Your task to perform on an android device: Open the stopwatch Image 0: 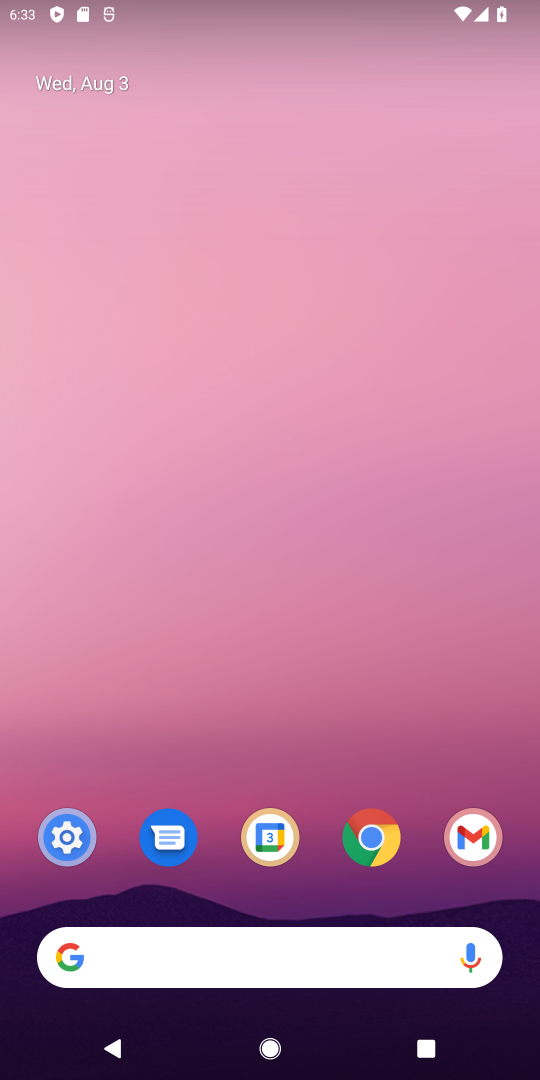
Step 0: press home button
Your task to perform on an android device: Open the stopwatch Image 1: 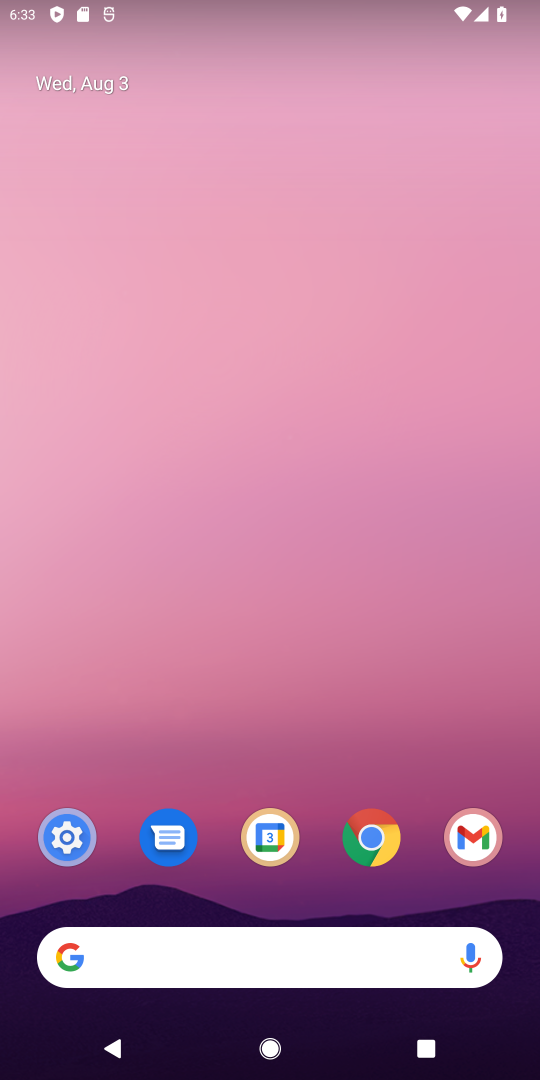
Step 1: drag from (271, 749) to (165, 159)
Your task to perform on an android device: Open the stopwatch Image 2: 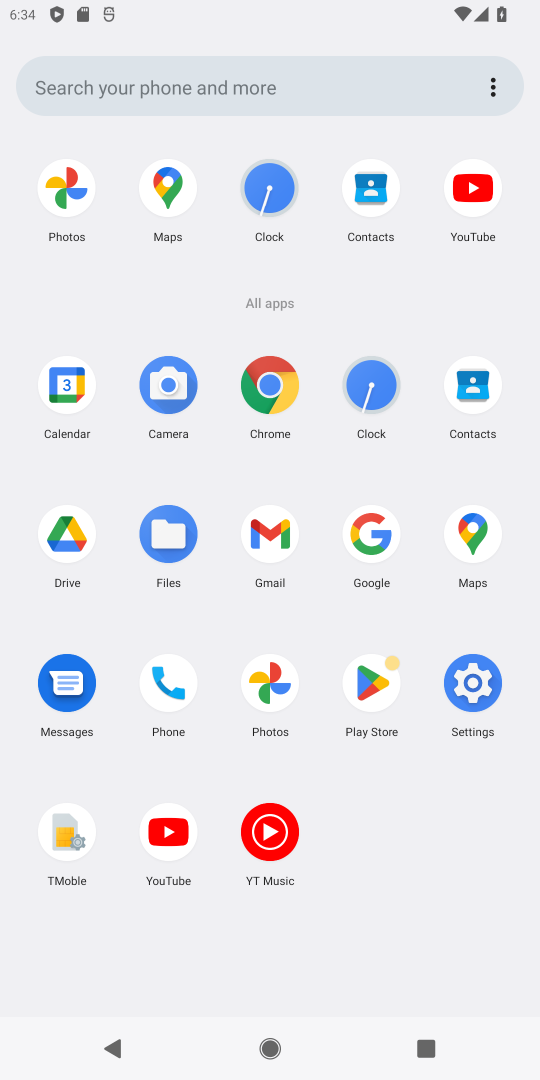
Step 2: click (277, 179)
Your task to perform on an android device: Open the stopwatch Image 3: 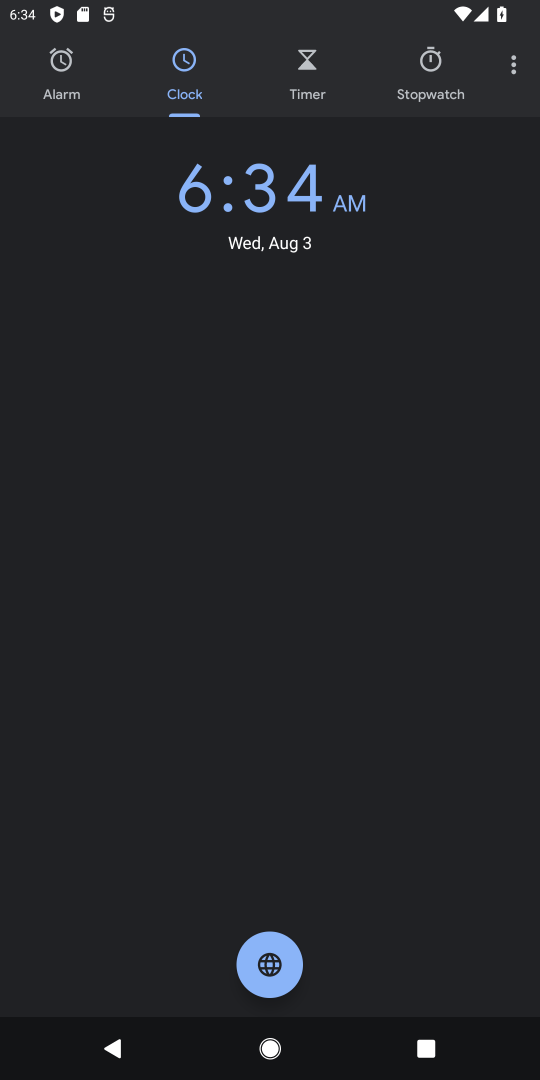
Step 3: click (431, 74)
Your task to perform on an android device: Open the stopwatch Image 4: 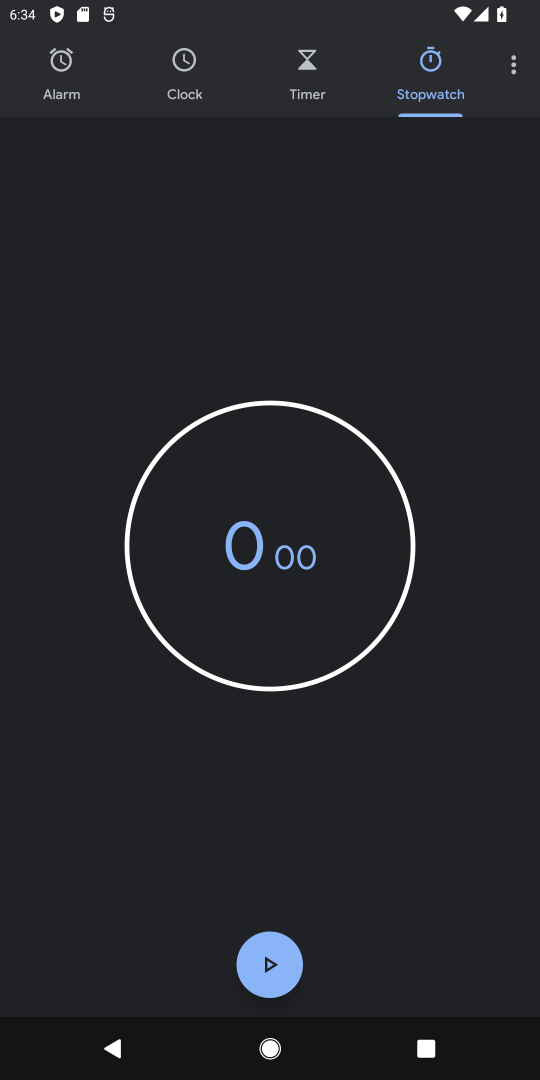
Step 4: task complete